Your task to perform on an android device: turn off picture-in-picture Image 0: 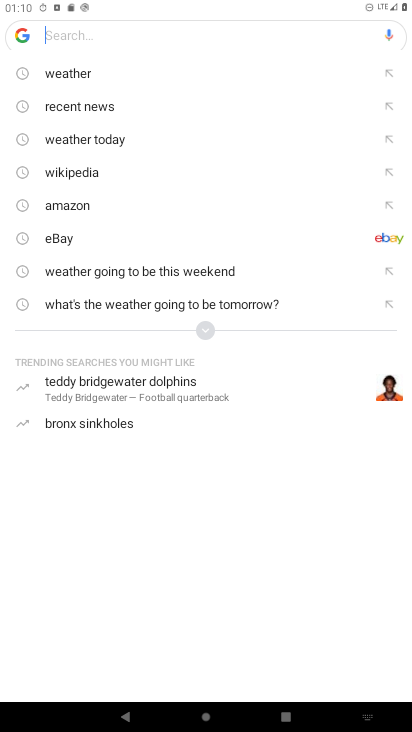
Step 0: press home button
Your task to perform on an android device: turn off picture-in-picture Image 1: 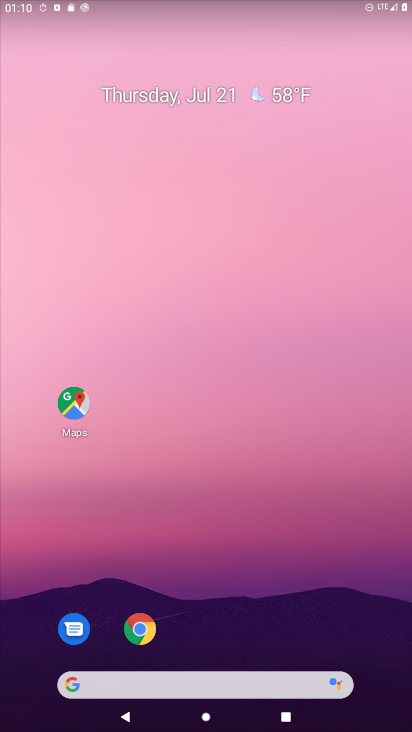
Step 1: click (146, 630)
Your task to perform on an android device: turn off picture-in-picture Image 2: 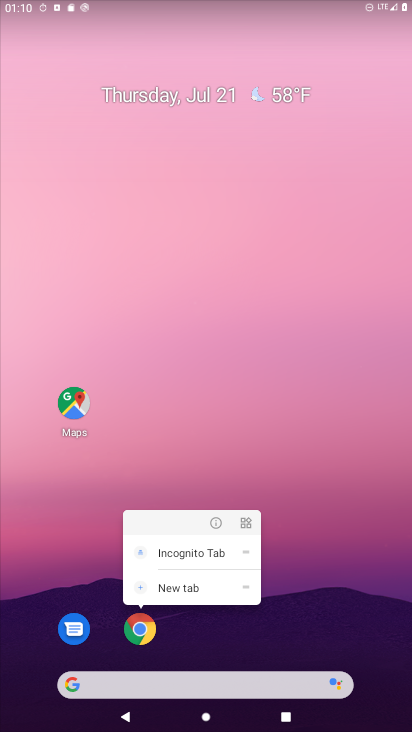
Step 2: click (205, 518)
Your task to perform on an android device: turn off picture-in-picture Image 3: 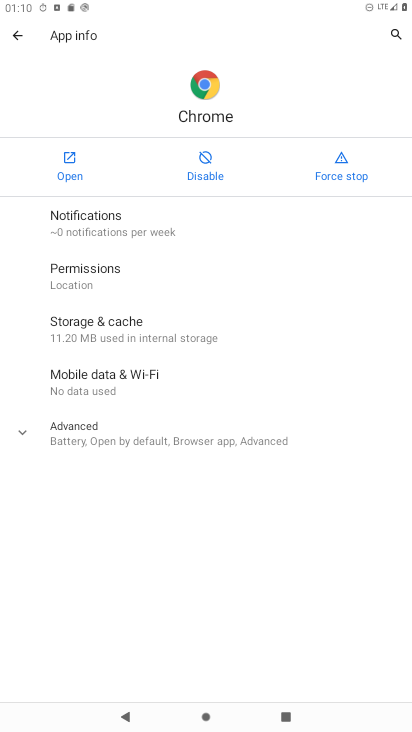
Step 3: click (155, 450)
Your task to perform on an android device: turn off picture-in-picture Image 4: 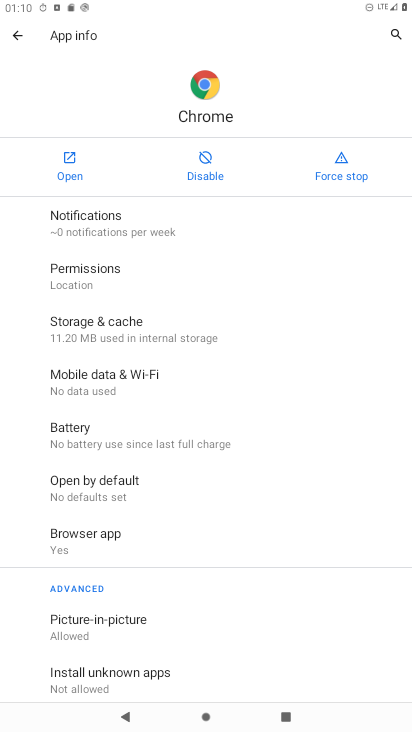
Step 4: click (147, 642)
Your task to perform on an android device: turn off picture-in-picture Image 5: 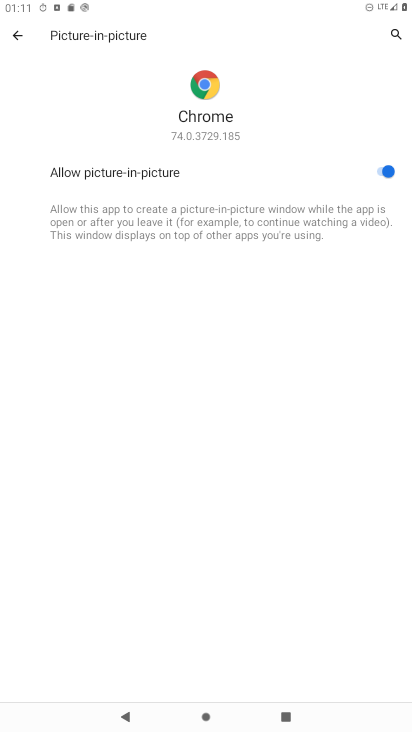
Step 5: click (388, 170)
Your task to perform on an android device: turn off picture-in-picture Image 6: 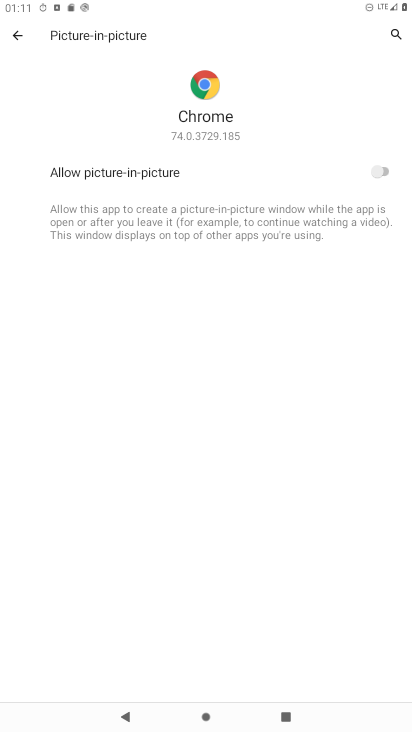
Step 6: task complete